Your task to perform on an android device: Search for pizza restaurants on Maps Image 0: 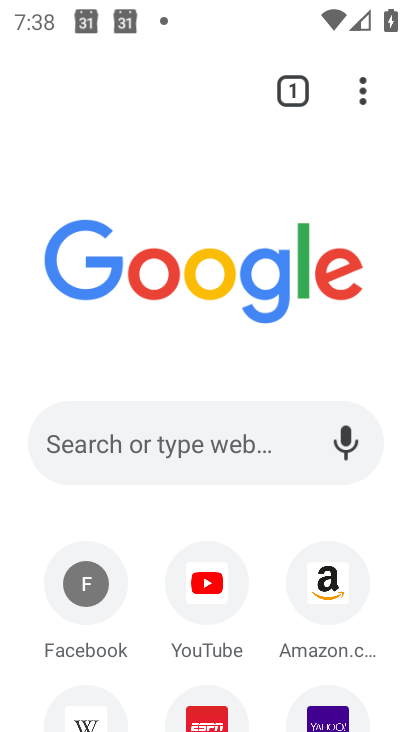
Step 0: press home button
Your task to perform on an android device: Search for pizza restaurants on Maps Image 1: 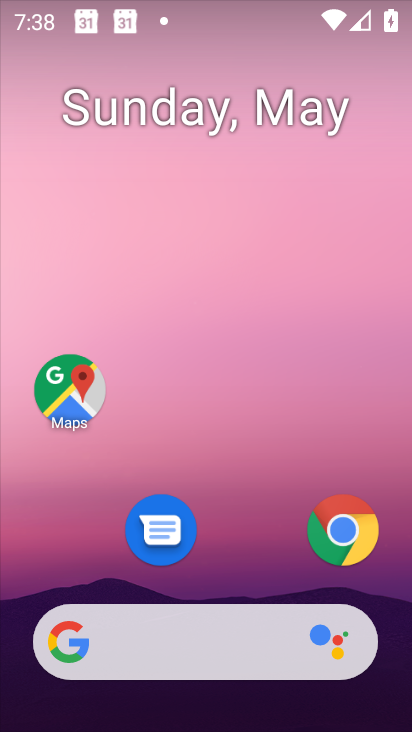
Step 1: click (79, 398)
Your task to perform on an android device: Search for pizza restaurants on Maps Image 2: 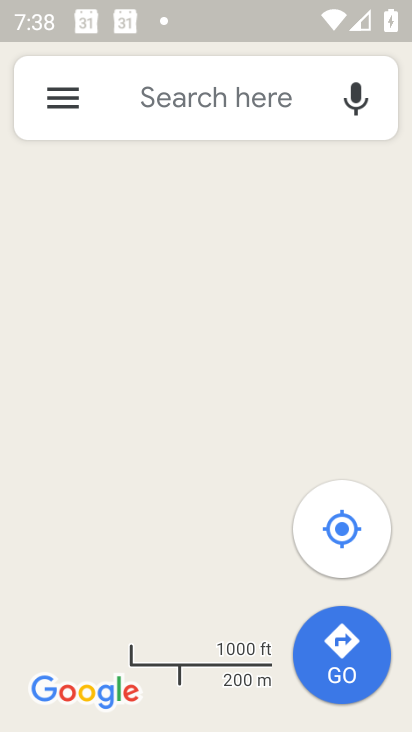
Step 2: click (244, 102)
Your task to perform on an android device: Search for pizza restaurants on Maps Image 3: 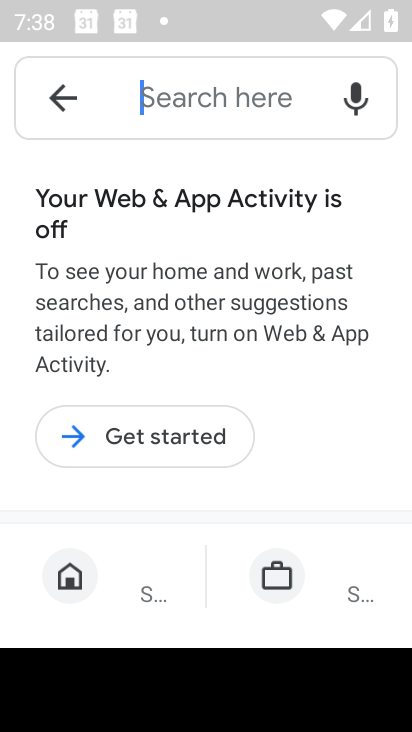
Step 3: click (197, 442)
Your task to perform on an android device: Search for pizza restaurants on Maps Image 4: 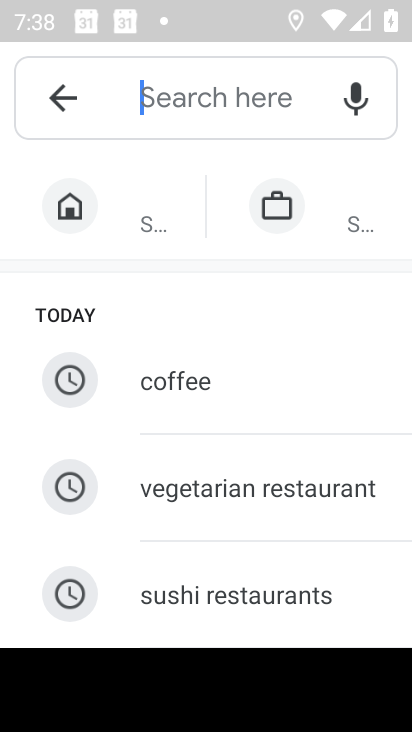
Step 4: drag from (214, 518) to (156, 56)
Your task to perform on an android device: Search for pizza restaurants on Maps Image 5: 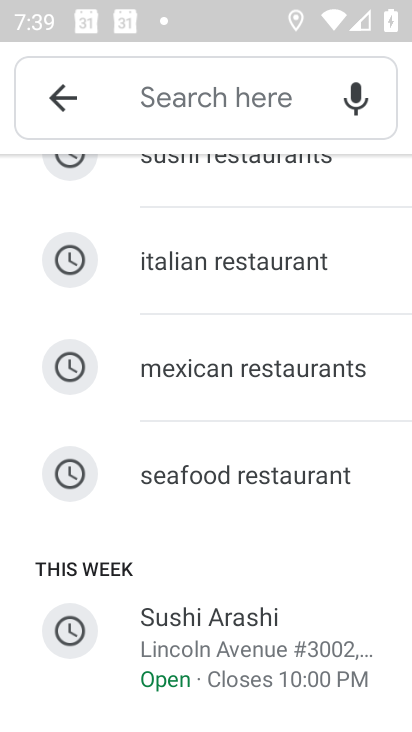
Step 5: drag from (241, 463) to (183, 0)
Your task to perform on an android device: Search for pizza restaurants on Maps Image 6: 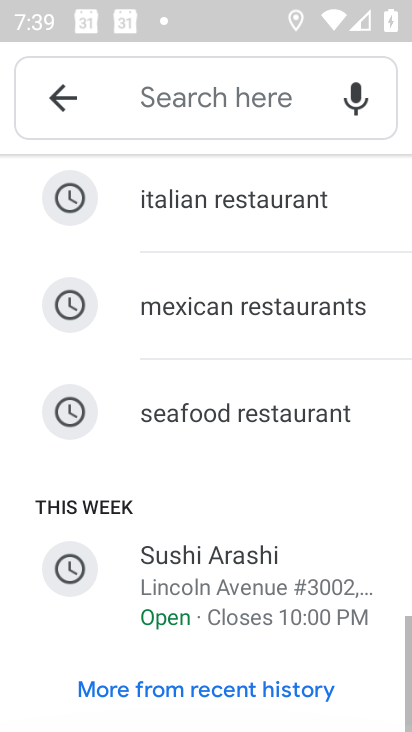
Step 6: drag from (208, 166) to (215, 685)
Your task to perform on an android device: Search for pizza restaurants on Maps Image 7: 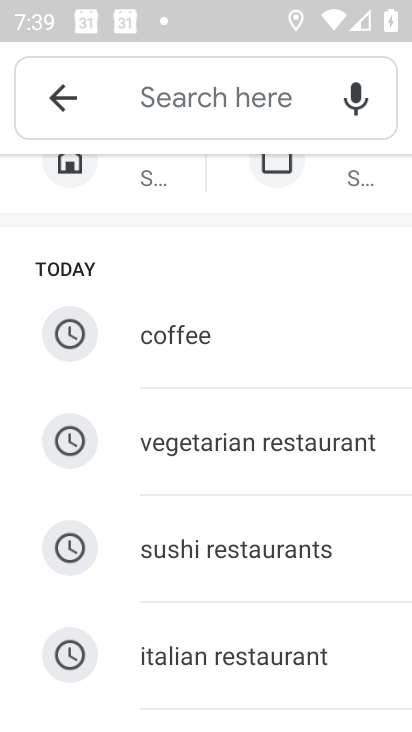
Step 7: click (147, 109)
Your task to perform on an android device: Search for pizza restaurants on Maps Image 8: 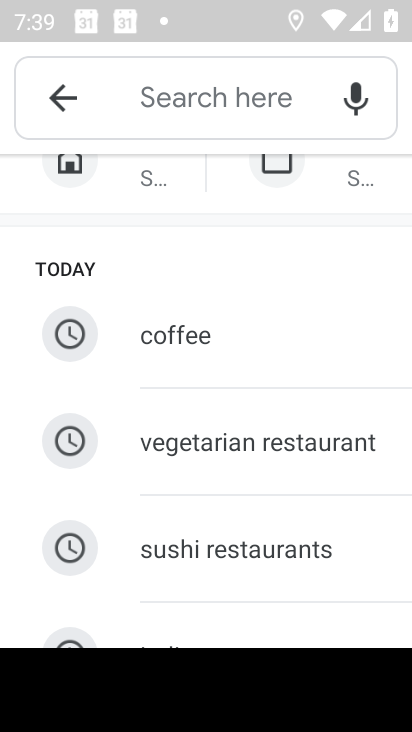
Step 8: type "pizzaa restaurant"
Your task to perform on an android device: Search for pizza restaurants on Maps Image 9: 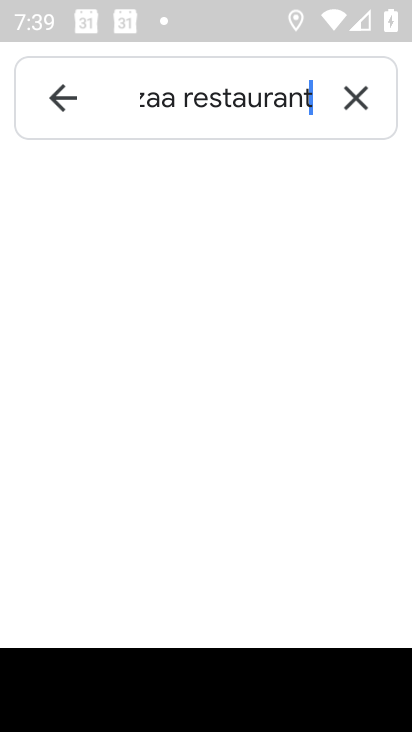
Step 9: type ""
Your task to perform on an android device: Search for pizza restaurants on Maps Image 10: 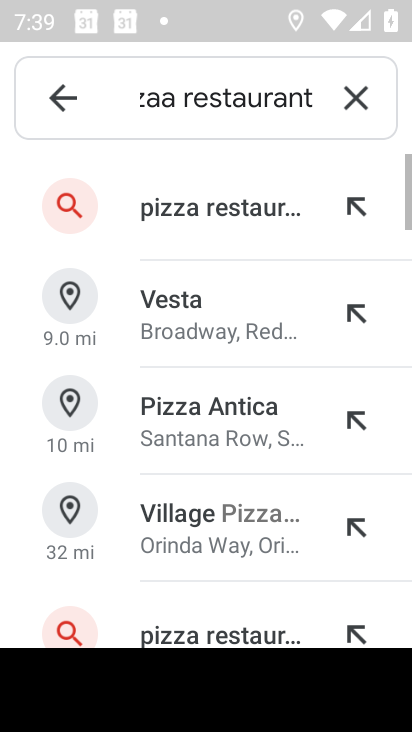
Step 10: click (228, 210)
Your task to perform on an android device: Search for pizza restaurants on Maps Image 11: 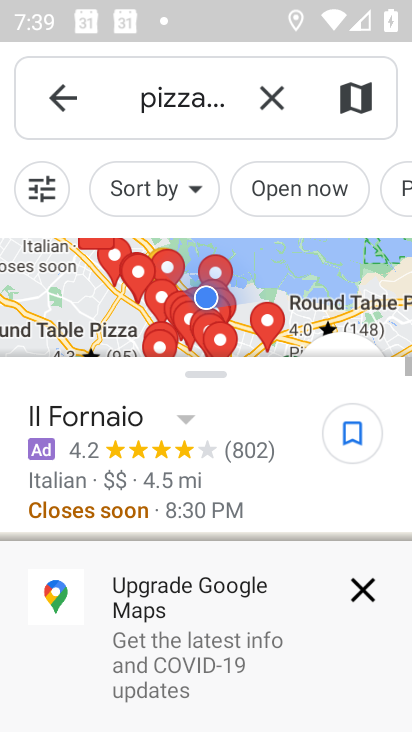
Step 11: task complete